Your task to perform on an android device: Open location settings Image 0: 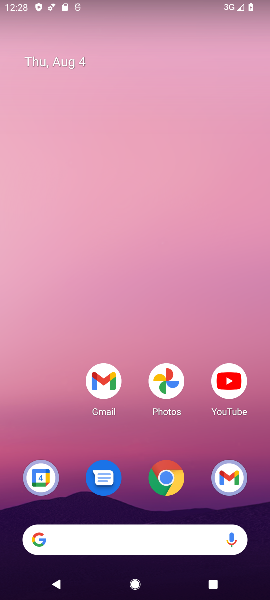
Step 0: drag from (184, 447) to (131, 130)
Your task to perform on an android device: Open location settings Image 1: 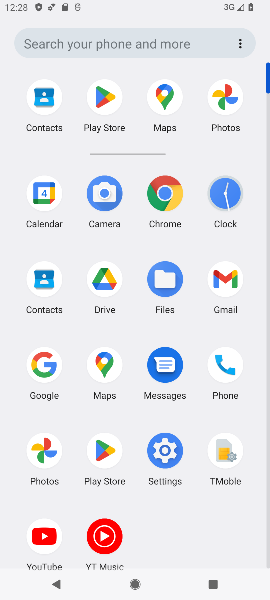
Step 1: click (106, 361)
Your task to perform on an android device: Open location settings Image 2: 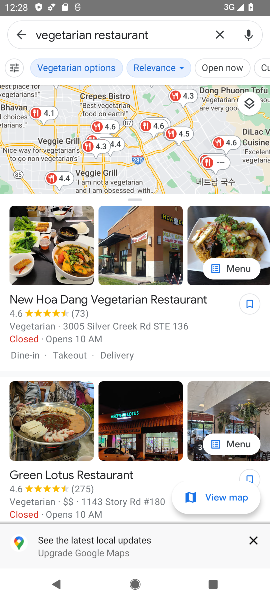
Step 2: click (16, 29)
Your task to perform on an android device: Open location settings Image 3: 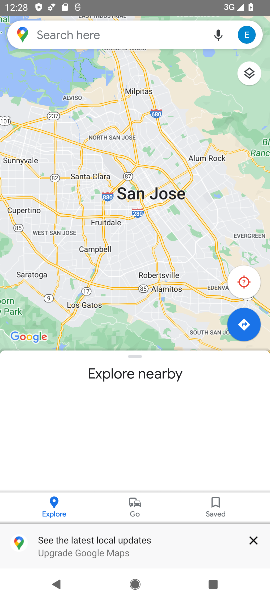
Step 3: press home button
Your task to perform on an android device: Open location settings Image 4: 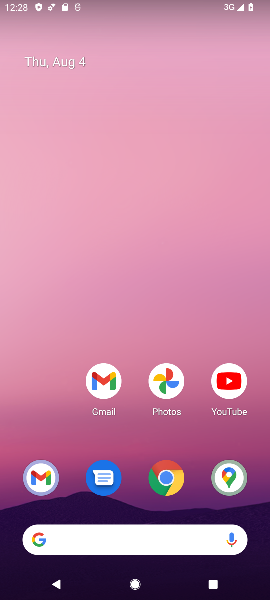
Step 4: drag from (135, 491) to (150, 155)
Your task to perform on an android device: Open location settings Image 5: 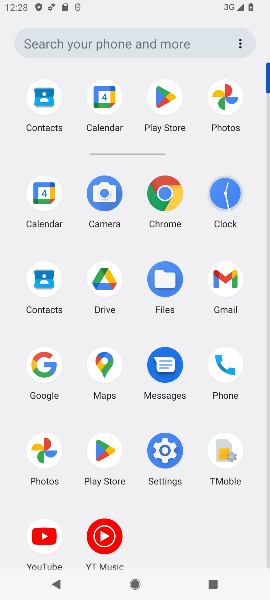
Step 5: click (161, 444)
Your task to perform on an android device: Open location settings Image 6: 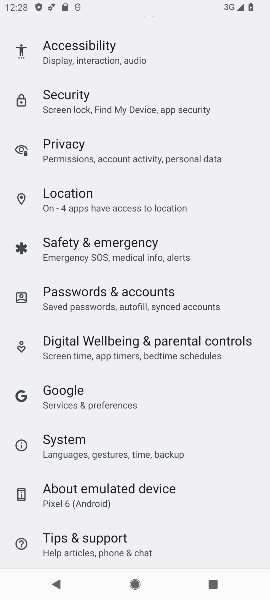
Step 6: click (114, 204)
Your task to perform on an android device: Open location settings Image 7: 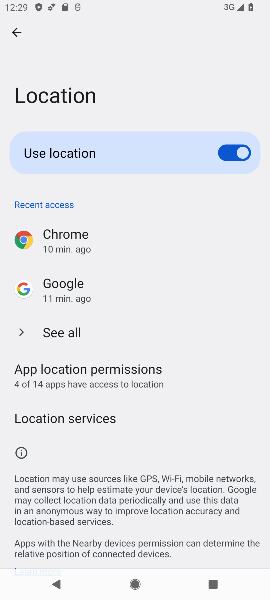
Step 7: task complete